Your task to perform on an android device: Open calendar and show me the second week of next month Image 0: 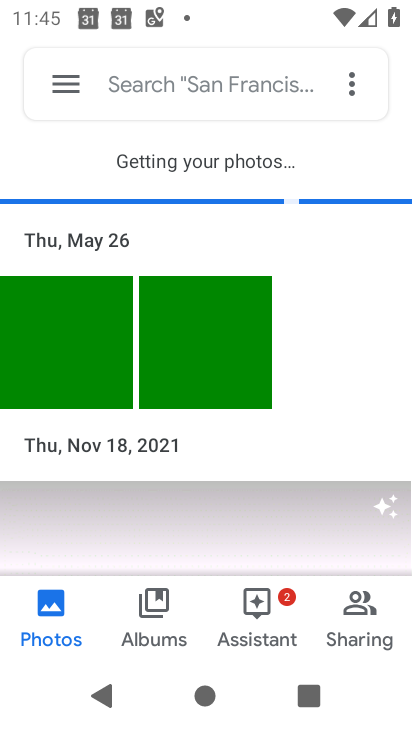
Step 0: press home button
Your task to perform on an android device: Open calendar and show me the second week of next month Image 1: 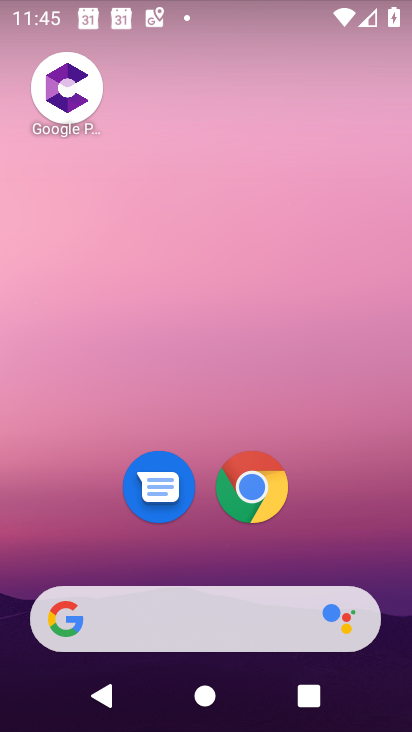
Step 1: drag from (380, 554) to (238, 1)
Your task to perform on an android device: Open calendar and show me the second week of next month Image 2: 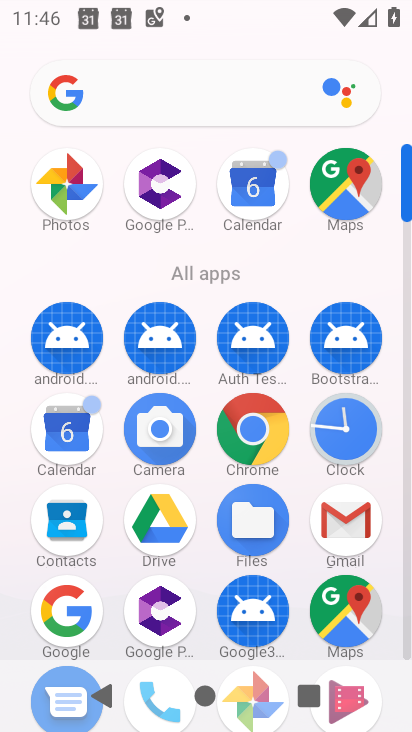
Step 2: click (66, 430)
Your task to perform on an android device: Open calendar and show me the second week of next month Image 3: 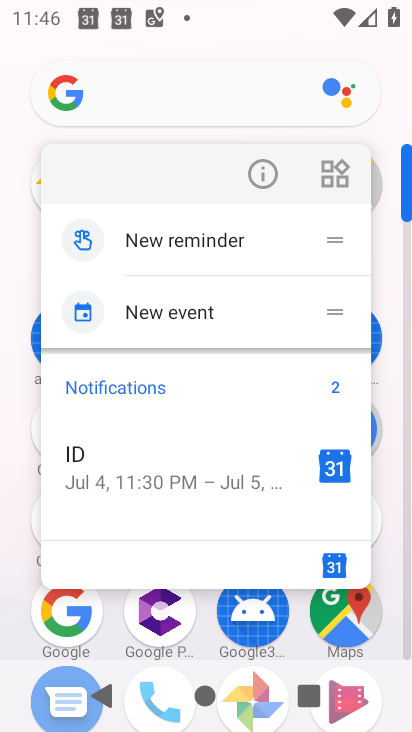
Step 3: click (12, 403)
Your task to perform on an android device: Open calendar and show me the second week of next month Image 4: 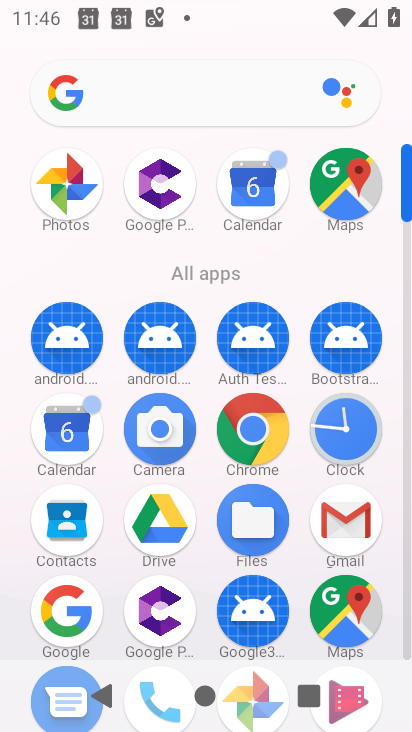
Step 4: click (55, 428)
Your task to perform on an android device: Open calendar and show me the second week of next month Image 5: 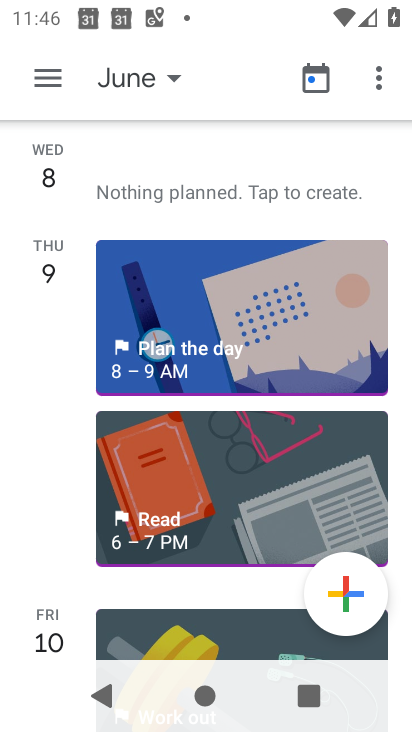
Step 5: click (47, 62)
Your task to perform on an android device: Open calendar and show me the second week of next month Image 6: 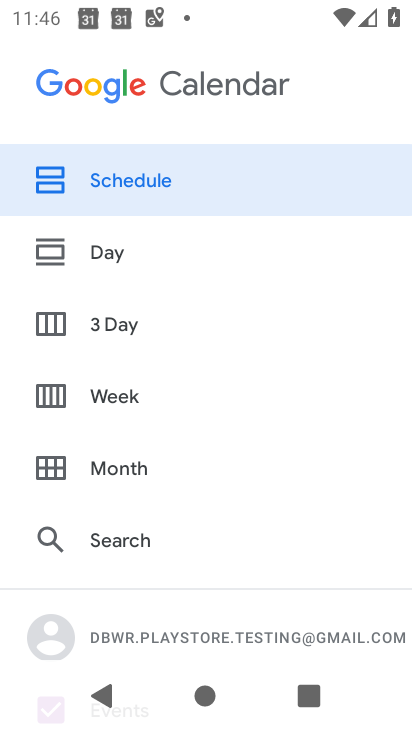
Step 6: click (166, 394)
Your task to perform on an android device: Open calendar and show me the second week of next month Image 7: 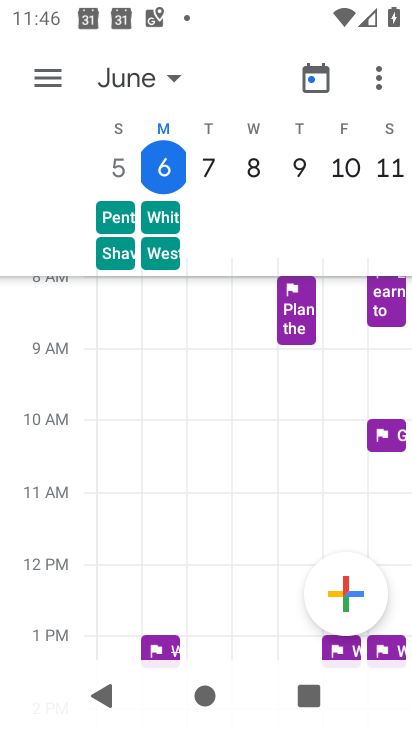
Step 7: click (167, 81)
Your task to perform on an android device: Open calendar and show me the second week of next month Image 8: 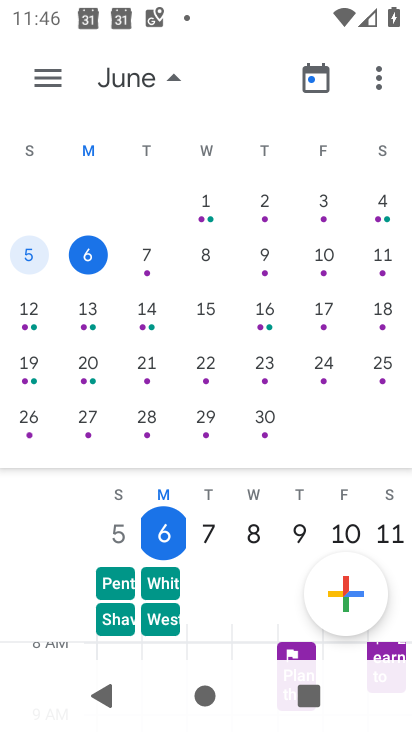
Step 8: drag from (388, 354) to (96, 313)
Your task to perform on an android device: Open calendar and show me the second week of next month Image 9: 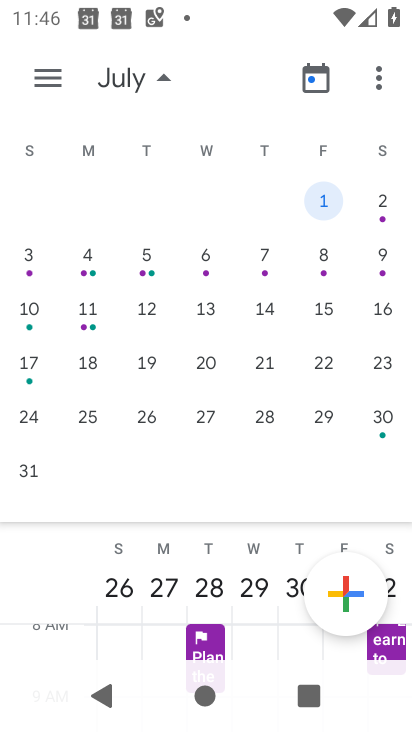
Step 9: click (256, 313)
Your task to perform on an android device: Open calendar and show me the second week of next month Image 10: 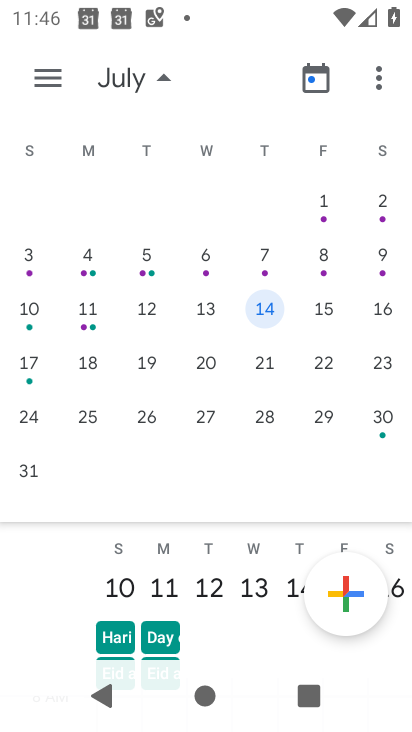
Step 10: task complete